Your task to perform on an android device: turn off smart reply in the gmail app Image 0: 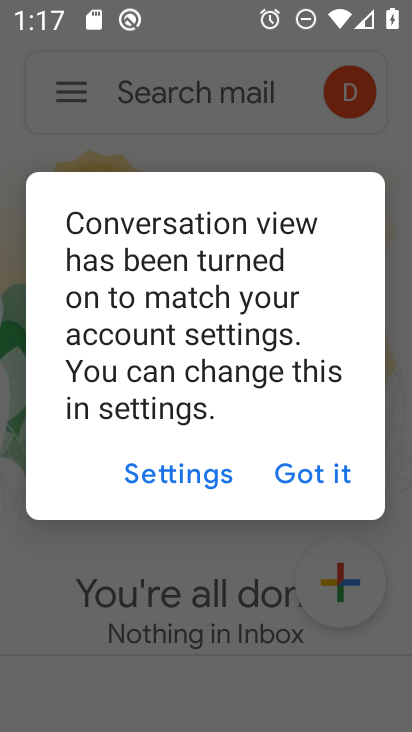
Step 0: click (307, 481)
Your task to perform on an android device: turn off smart reply in the gmail app Image 1: 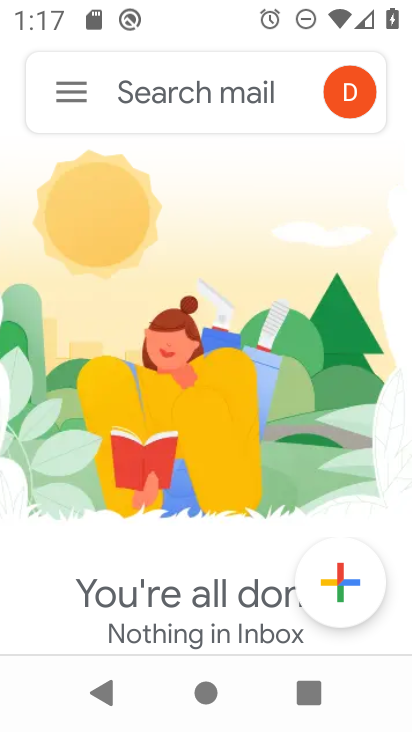
Step 1: click (83, 88)
Your task to perform on an android device: turn off smart reply in the gmail app Image 2: 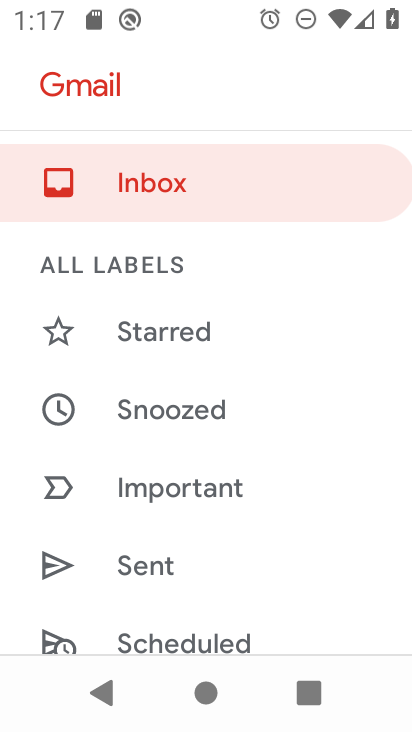
Step 2: drag from (126, 649) to (244, 87)
Your task to perform on an android device: turn off smart reply in the gmail app Image 3: 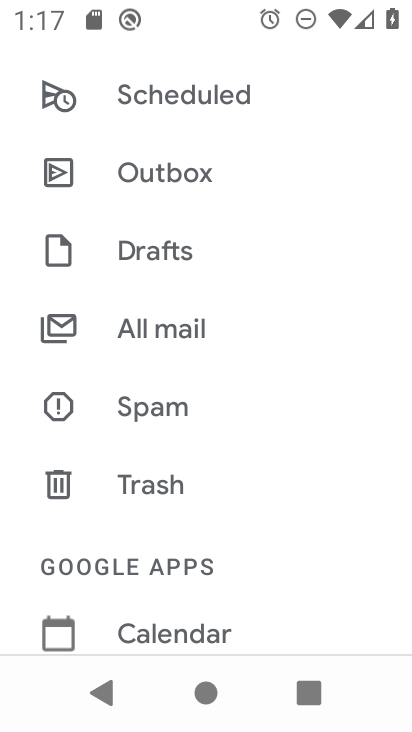
Step 3: drag from (142, 519) to (146, 34)
Your task to perform on an android device: turn off smart reply in the gmail app Image 4: 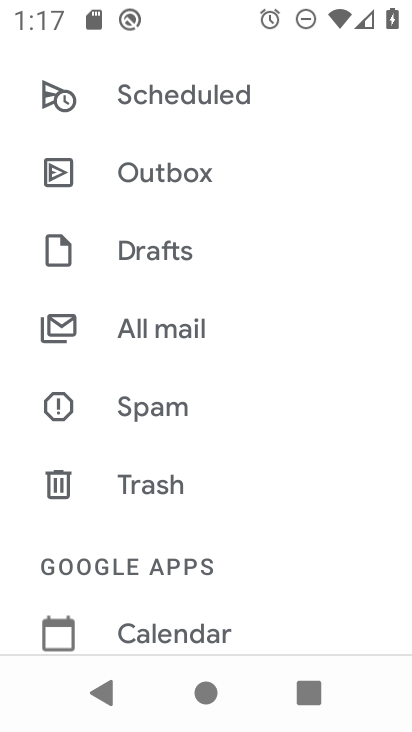
Step 4: drag from (119, 626) to (118, 169)
Your task to perform on an android device: turn off smart reply in the gmail app Image 5: 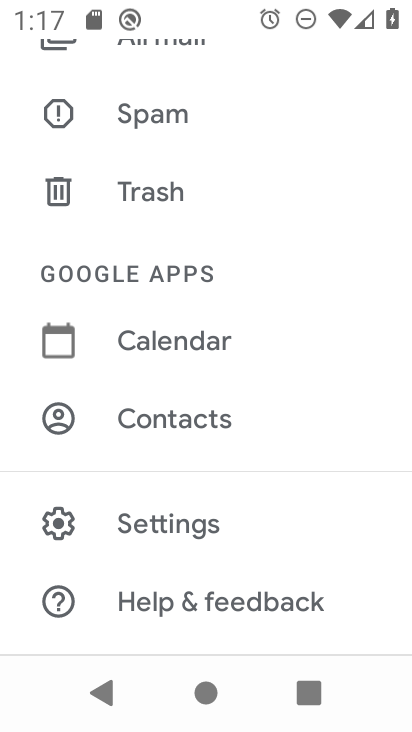
Step 5: click (220, 539)
Your task to perform on an android device: turn off smart reply in the gmail app Image 6: 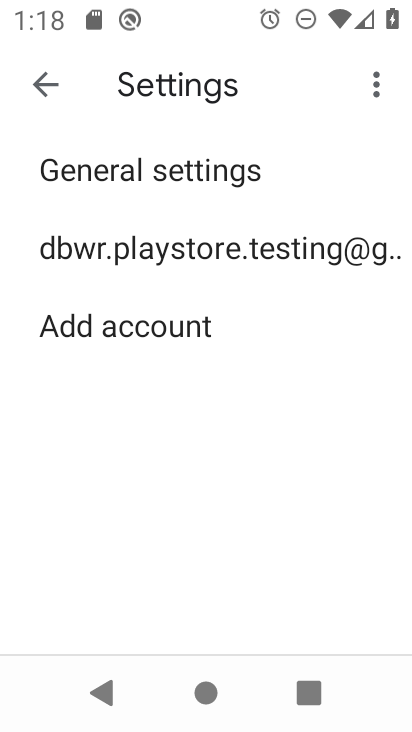
Step 6: click (135, 262)
Your task to perform on an android device: turn off smart reply in the gmail app Image 7: 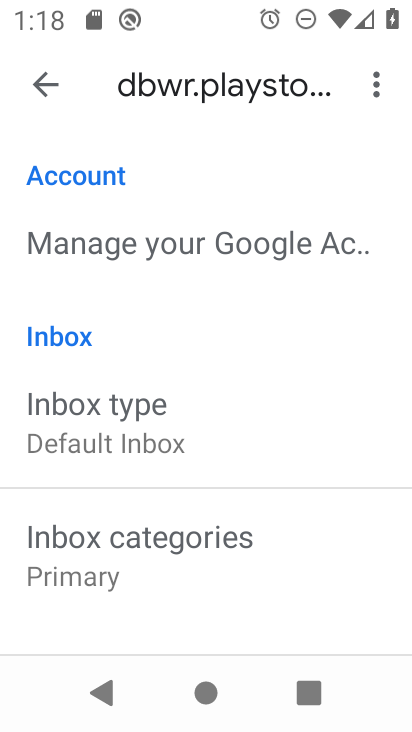
Step 7: drag from (114, 561) to (137, 116)
Your task to perform on an android device: turn off smart reply in the gmail app Image 8: 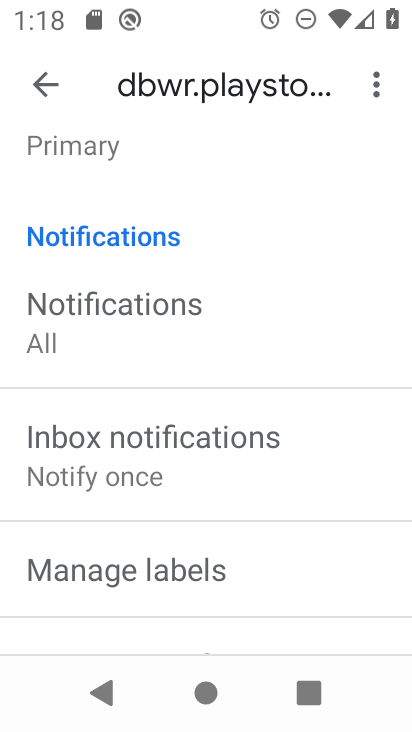
Step 8: drag from (119, 545) to (307, 74)
Your task to perform on an android device: turn off smart reply in the gmail app Image 9: 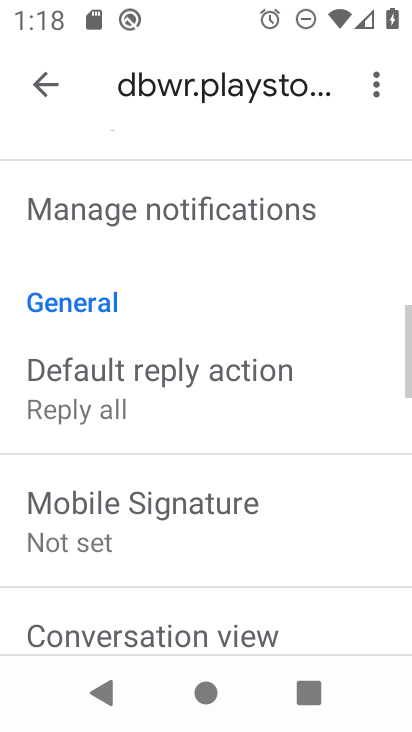
Step 9: drag from (77, 587) to (119, 214)
Your task to perform on an android device: turn off smart reply in the gmail app Image 10: 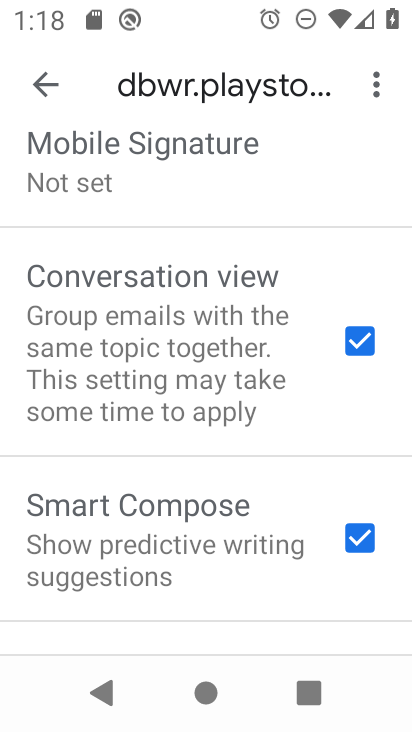
Step 10: drag from (109, 588) to (187, 202)
Your task to perform on an android device: turn off smart reply in the gmail app Image 11: 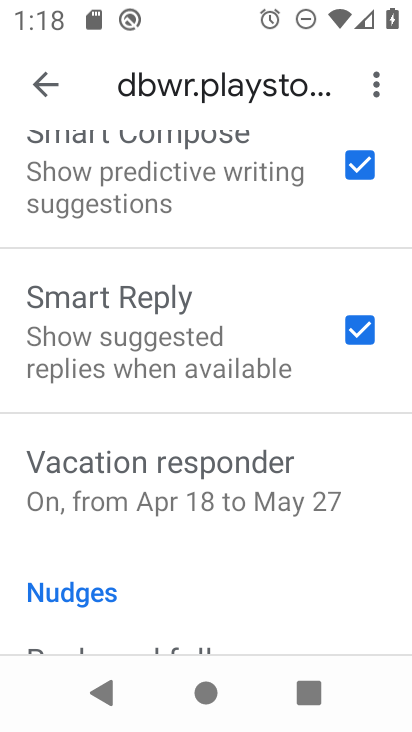
Step 11: click (349, 332)
Your task to perform on an android device: turn off smart reply in the gmail app Image 12: 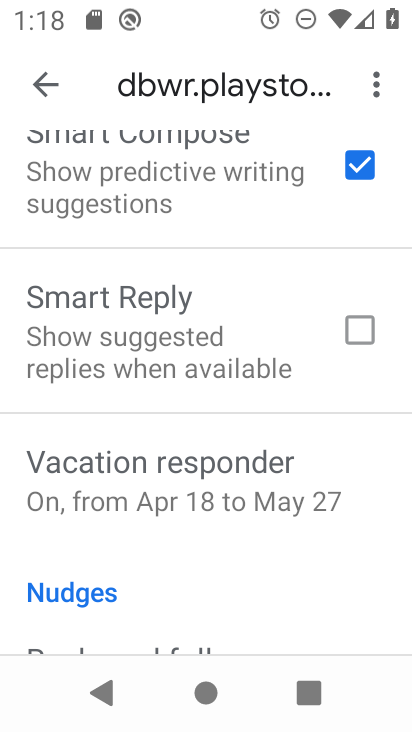
Step 12: task complete